Your task to perform on an android device: turn on sleep mode Image 0: 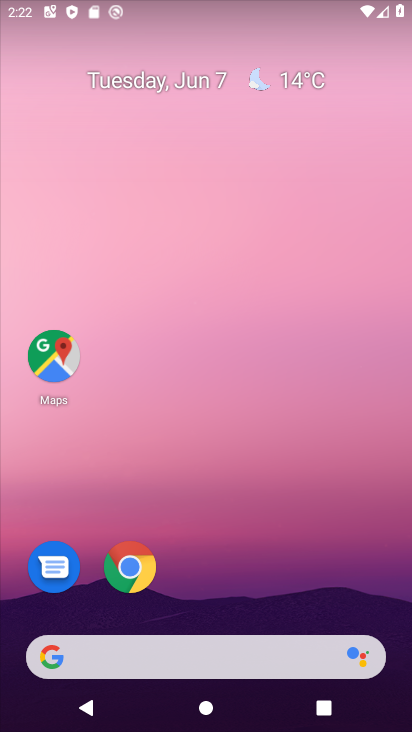
Step 0: drag from (221, 589) to (223, 199)
Your task to perform on an android device: turn on sleep mode Image 1: 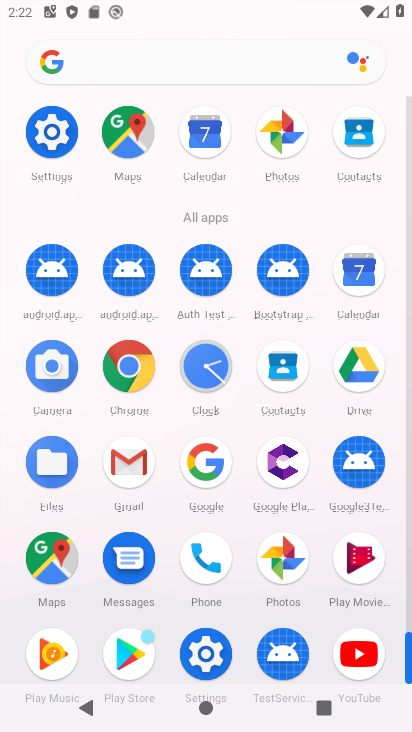
Step 1: click (73, 150)
Your task to perform on an android device: turn on sleep mode Image 2: 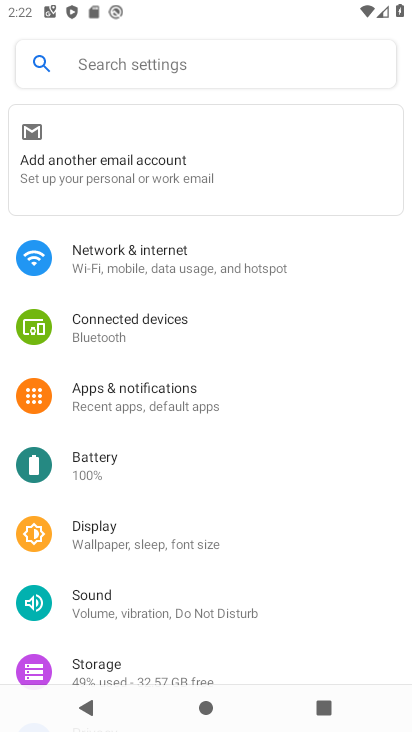
Step 2: click (140, 536)
Your task to perform on an android device: turn on sleep mode Image 3: 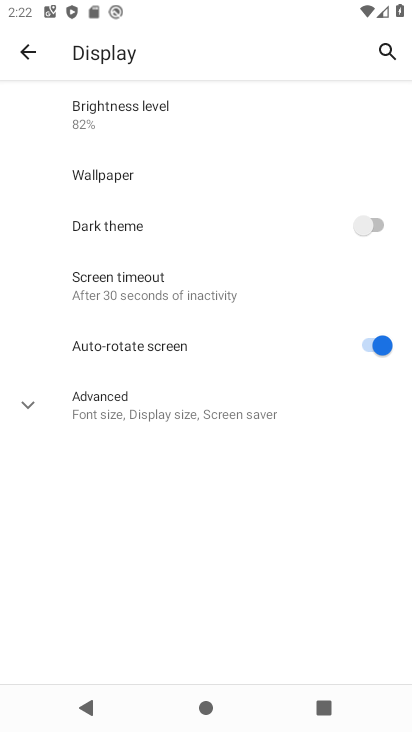
Step 3: click (193, 272)
Your task to perform on an android device: turn on sleep mode Image 4: 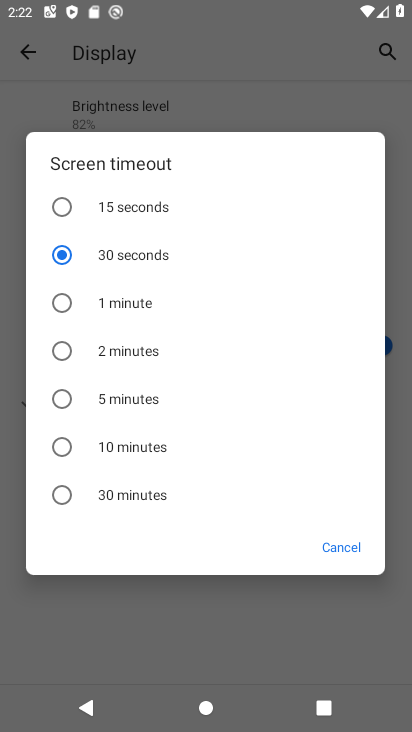
Step 4: click (141, 414)
Your task to perform on an android device: turn on sleep mode Image 5: 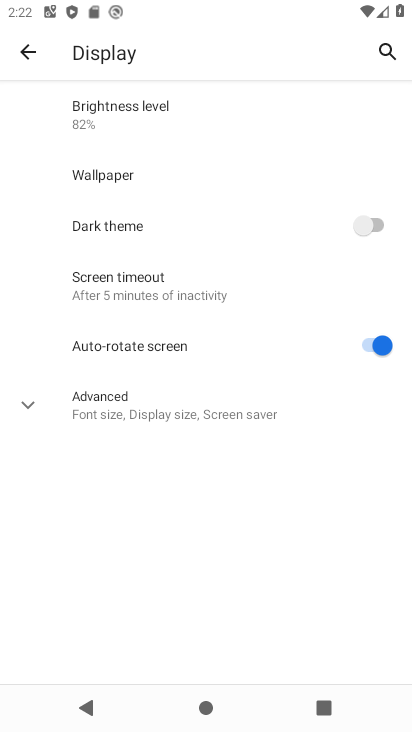
Step 5: task complete